Your task to perform on an android device: Go to sound settings Image 0: 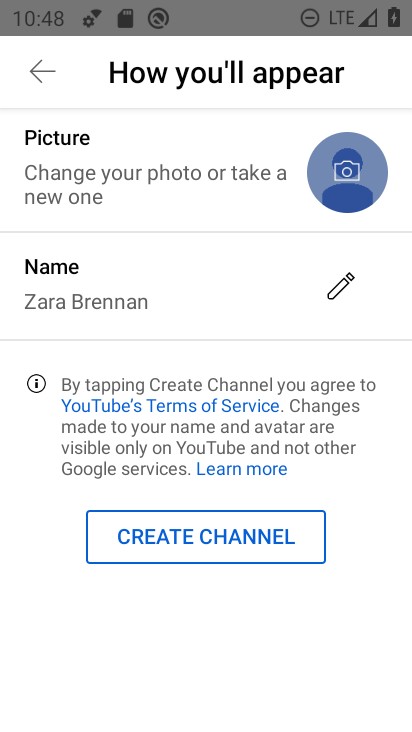
Step 0: press home button
Your task to perform on an android device: Go to sound settings Image 1: 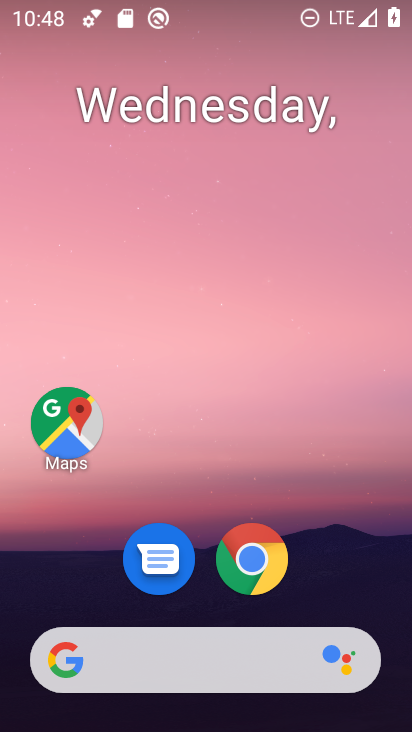
Step 1: drag from (345, 550) to (352, 189)
Your task to perform on an android device: Go to sound settings Image 2: 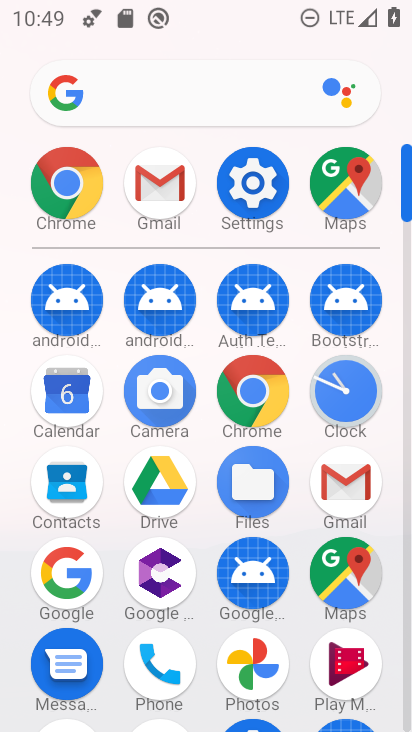
Step 2: click (261, 190)
Your task to perform on an android device: Go to sound settings Image 3: 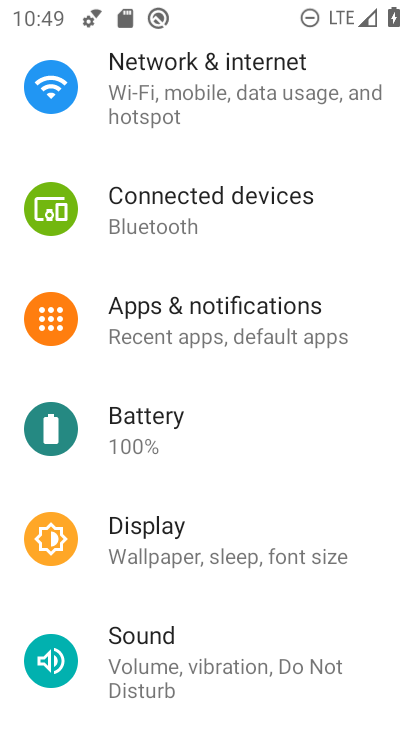
Step 3: drag from (375, 253) to (367, 360)
Your task to perform on an android device: Go to sound settings Image 4: 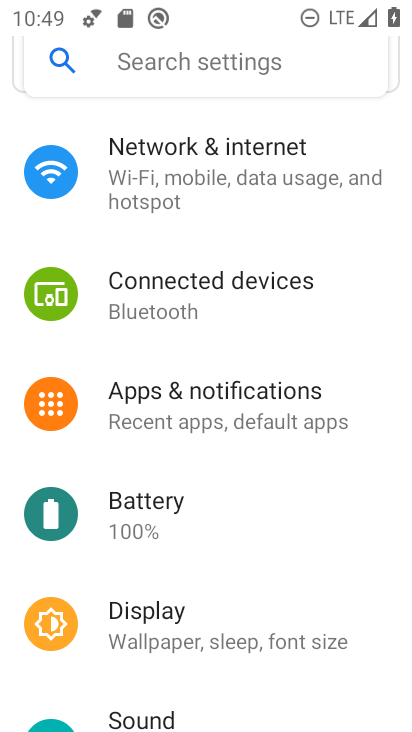
Step 4: drag from (363, 227) to (361, 339)
Your task to perform on an android device: Go to sound settings Image 5: 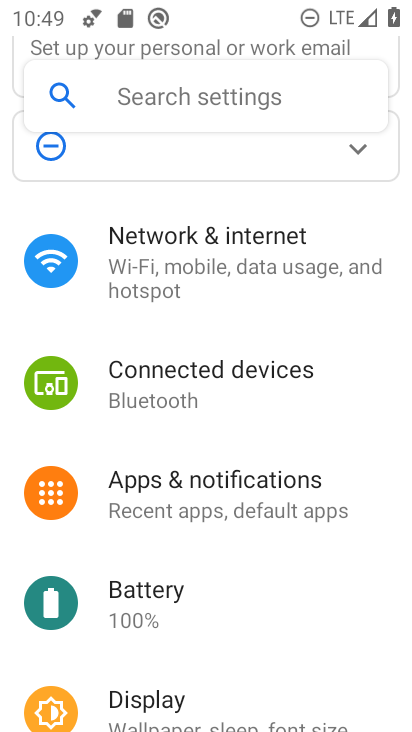
Step 5: drag from (356, 213) to (365, 366)
Your task to perform on an android device: Go to sound settings Image 6: 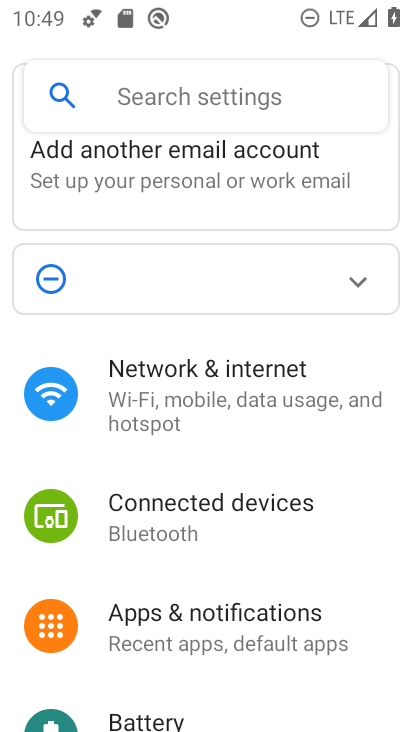
Step 6: drag from (374, 464) to (360, 348)
Your task to perform on an android device: Go to sound settings Image 7: 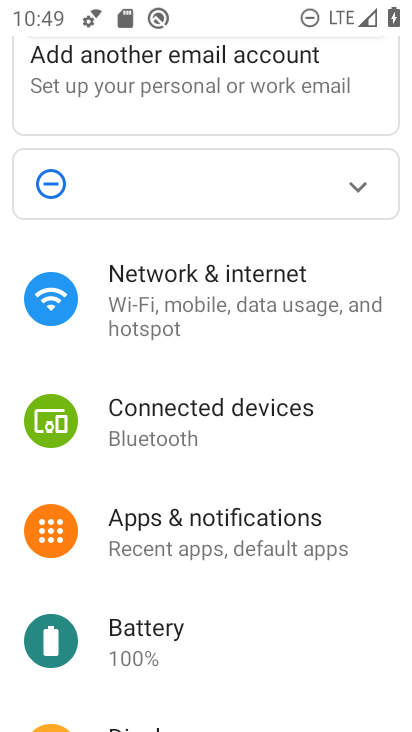
Step 7: drag from (361, 465) to (350, 366)
Your task to perform on an android device: Go to sound settings Image 8: 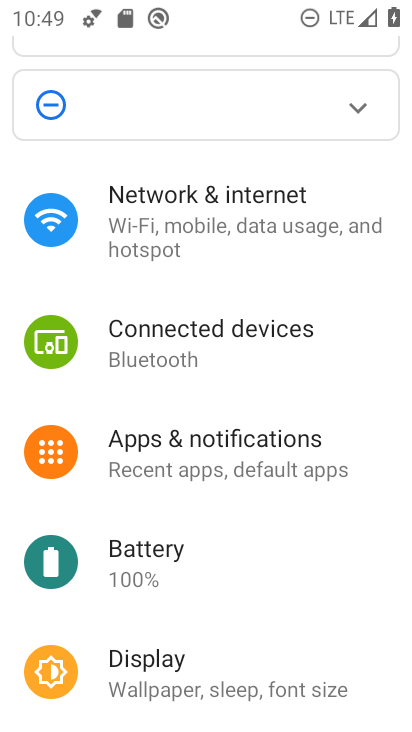
Step 8: drag from (346, 451) to (323, 332)
Your task to perform on an android device: Go to sound settings Image 9: 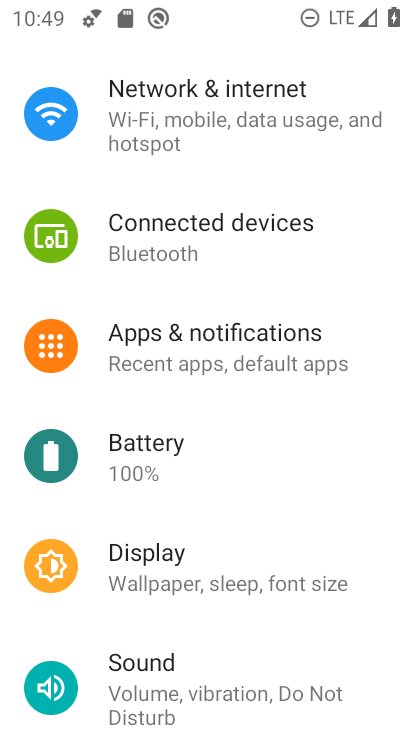
Step 9: drag from (358, 464) to (364, 377)
Your task to perform on an android device: Go to sound settings Image 10: 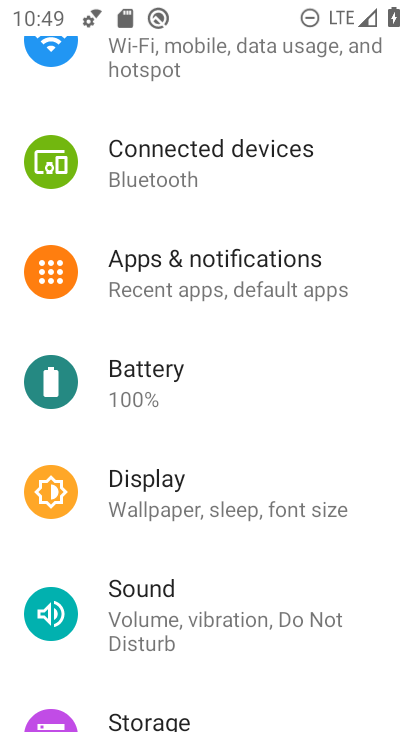
Step 10: drag from (376, 529) to (386, 409)
Your task to perform on an android device: Go to sound settings Image 11: 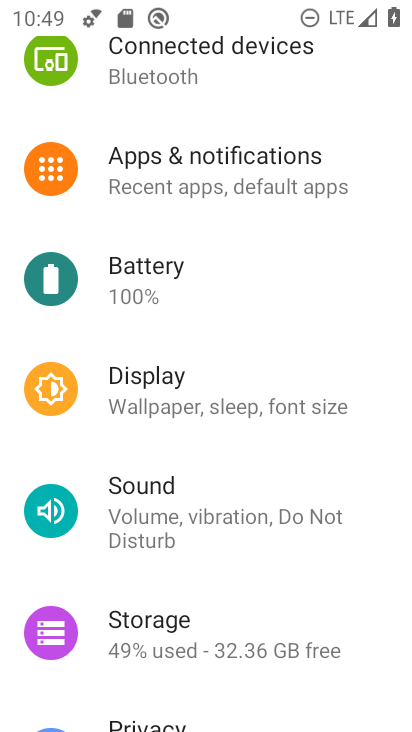
Step 11: drag from (363, 549) to (372, 432)
Your task to perform on an android device: Go to sound settings Image 12: 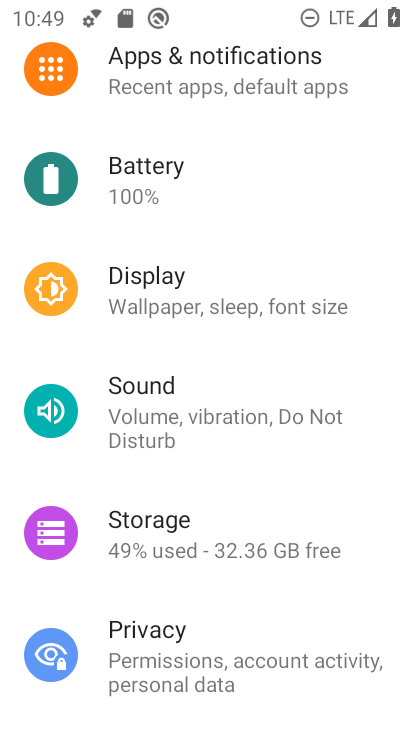
Step 12: click (320, 426)
Your task to perform on an android device: Go to sound settings Image 13: 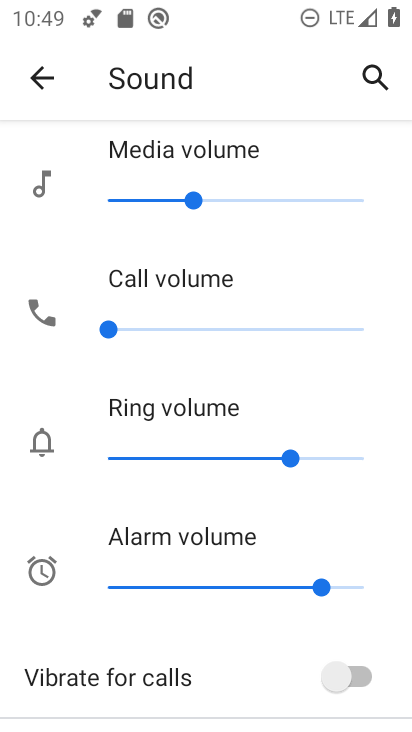
Step 13: task complete